Your task to perform on an android device: Go to battery settings Image 0: 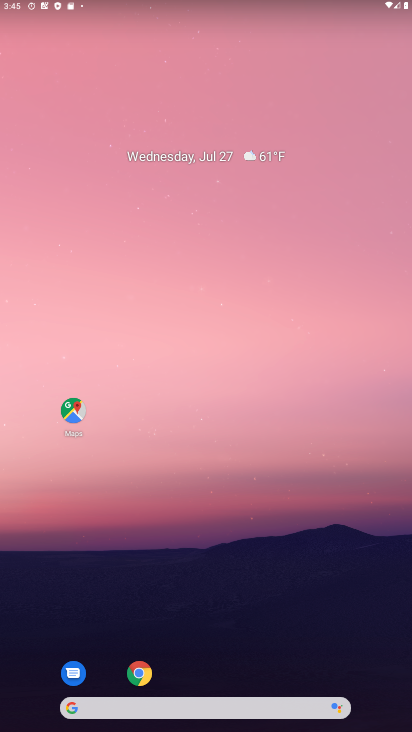
Step 0: drag from (25, 701) to (164, 206)
Your task to perform on an android device: Go to battery settings Image 1: 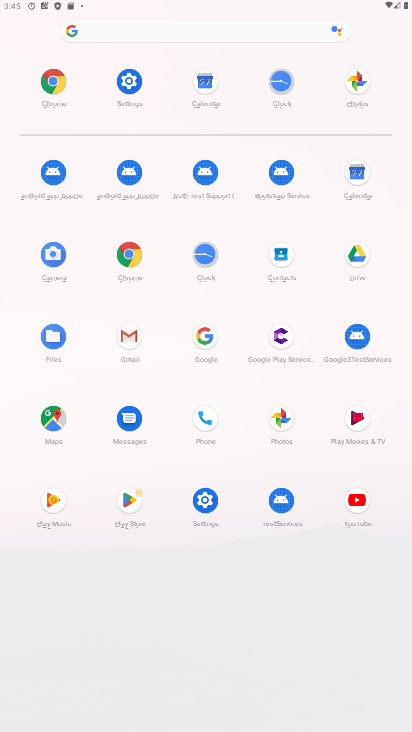
Step 1: click (214, 489)
Your task to perform on an android device: Go to battery settings Image 2: 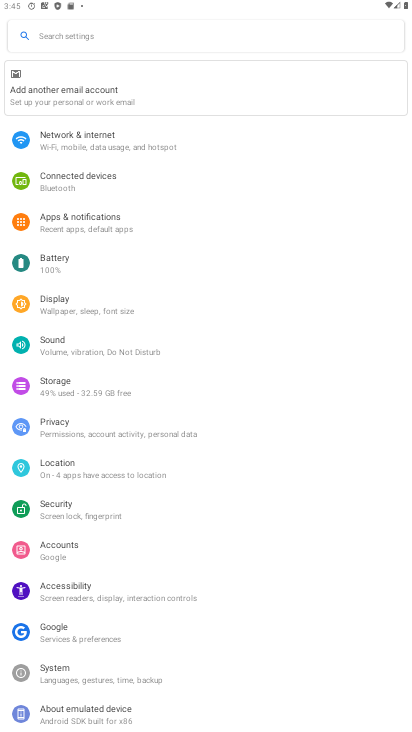
Step 2: click (69, 256)
Your task to perform on an android device: Go to battery settings Image 3: 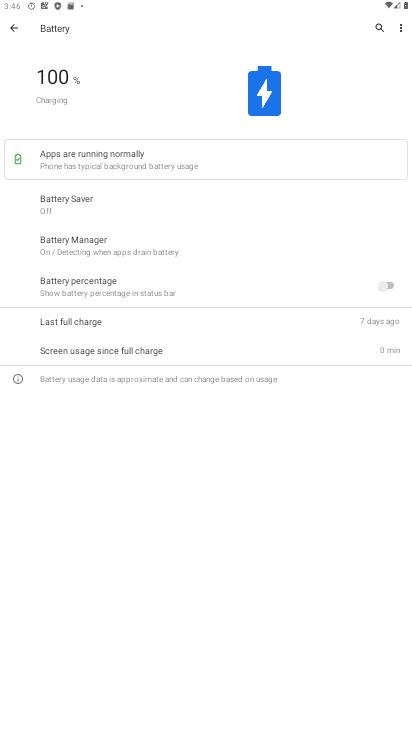
Step 3: task complete